Your task to perform on an android device: turn notification dots off Image 0: 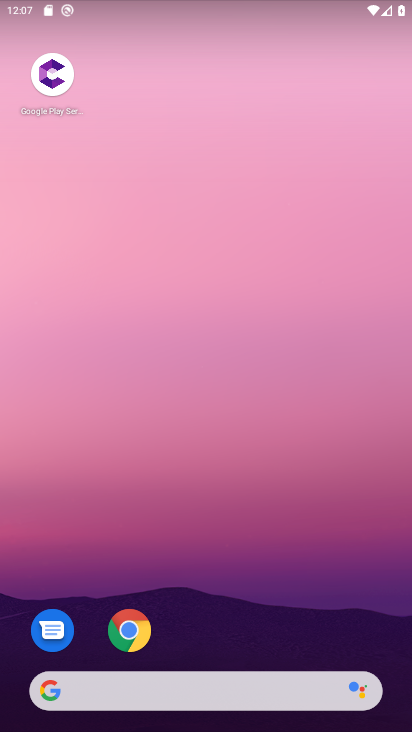
Step 0: drag from (207, 645) to (216, 158)
Your task to perform on an android device: turn notification dots off Image 1: 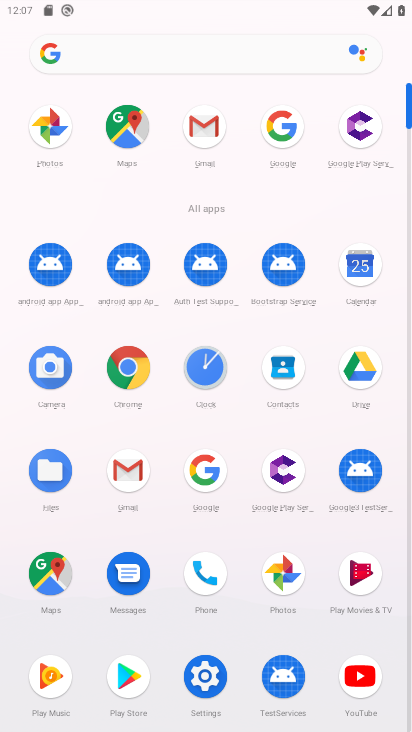
Step 1: click (206, 664)
Your task to perform on an android device: turn notification dots off Image 2: 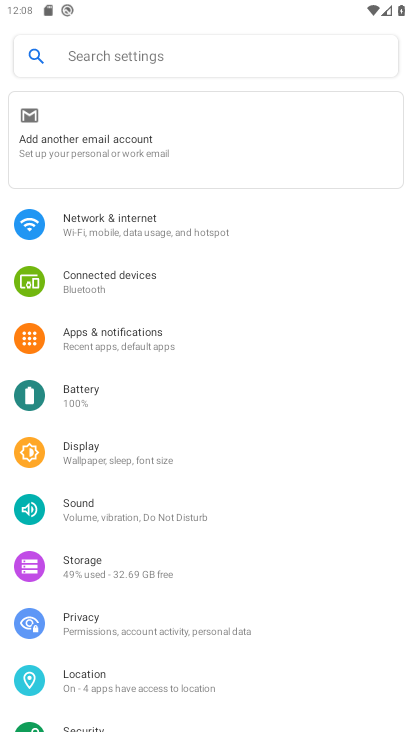
Step 2: click (159, 326)
Your task to perform on an android device: turn notification dots off Image 3: 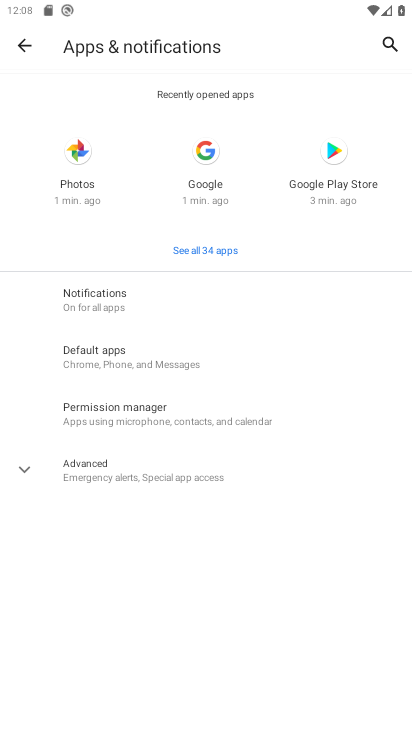
Step 3: click (150, 299)
Your task to perform on an android device: turn notification dots off Image 4: 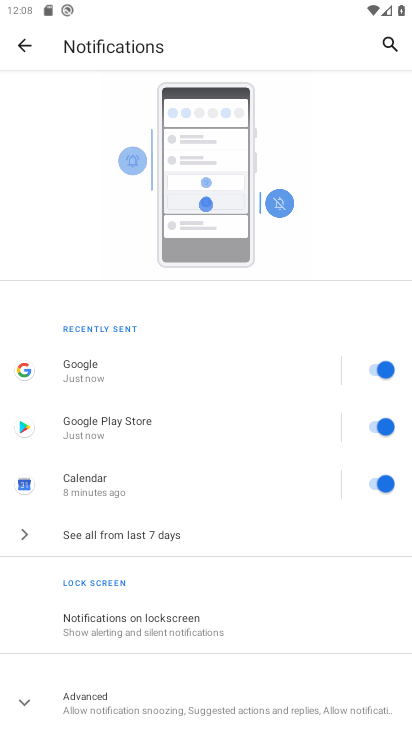
Step 4: drag from (207, 650) to (221, 527)
Your task to perform on an android device: turn notification dots off Image 5: 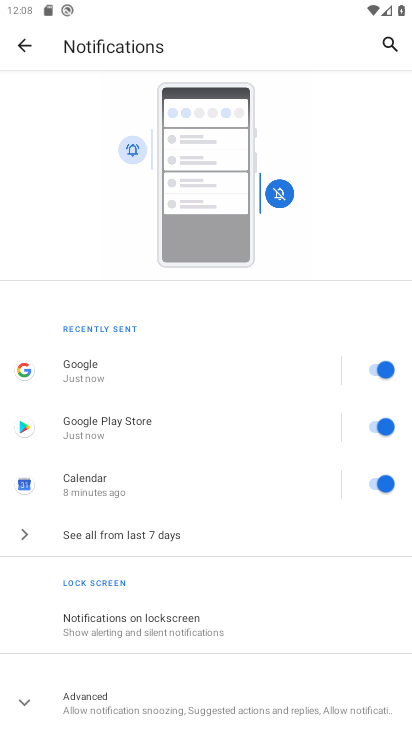
Step 5: click (199, 688)
Your task to perform on an android device: turn notification dots off Image 6: 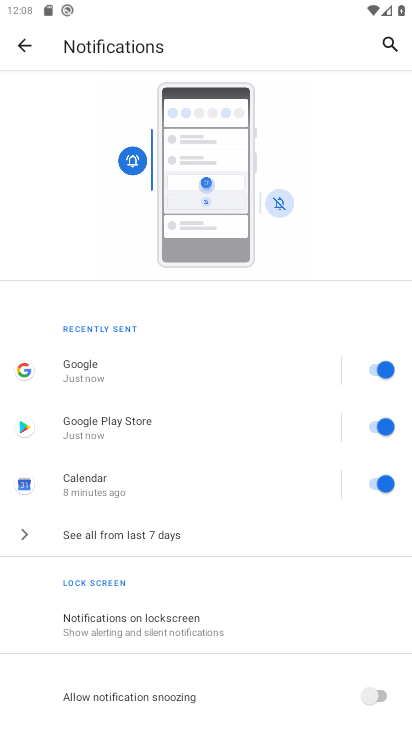
Step 6: drag from (190, 662) to (224, 329)
Your task to perform on an android device: turn notification dots off Image 7: 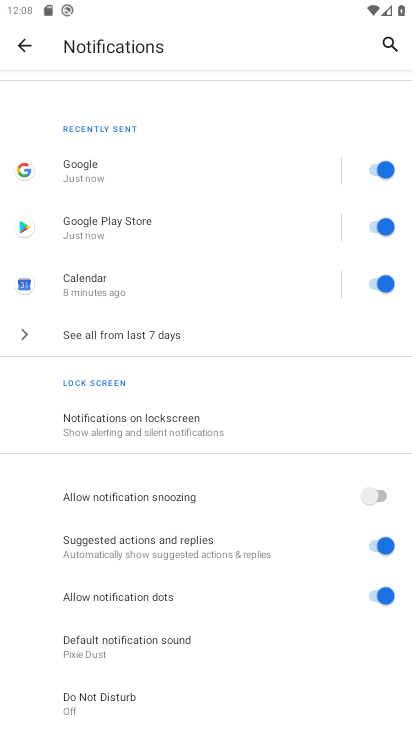
Step 7: click (369, 593)
Your task to perform on an android device: turn notification dots off Image 8: 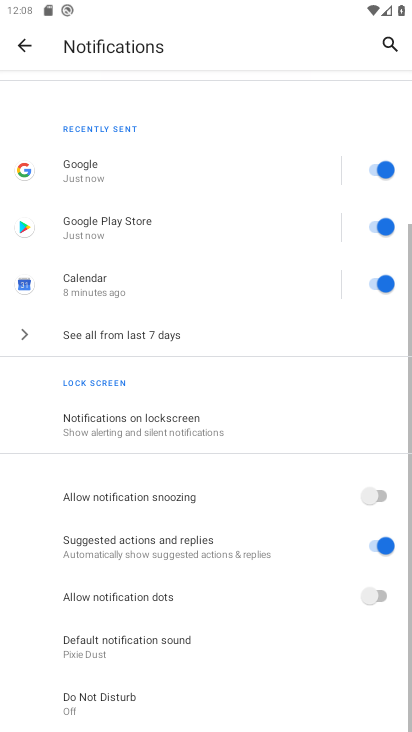
Step 8: task complete